Your task to perform on an android device: Open Google Chrome and click the shortcut for Amazon.com Image 0: 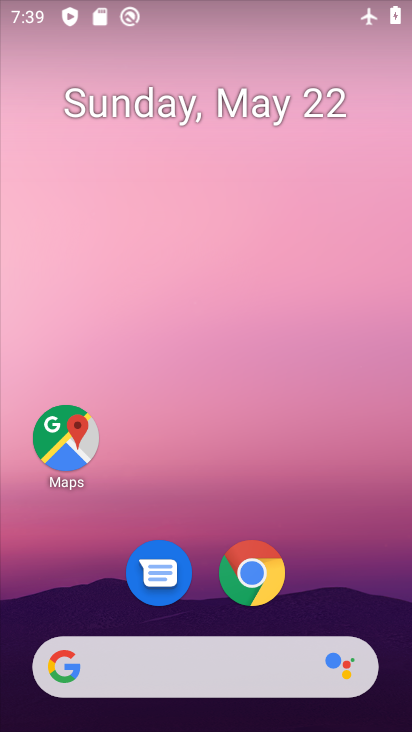
Step 0: drag from (342, 556) to (300, 145)
Your task to perform on an android device: Open Google Chrome and click the shortcut for Amazon.com Image 1: 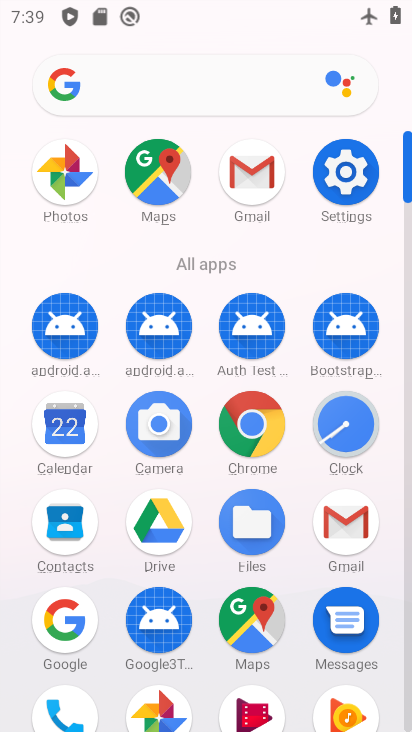
Step 1: click (239, 435)
Your task to perform on an android device: Open Google Chrome and click the shortcut for Amazon.com Image 2: 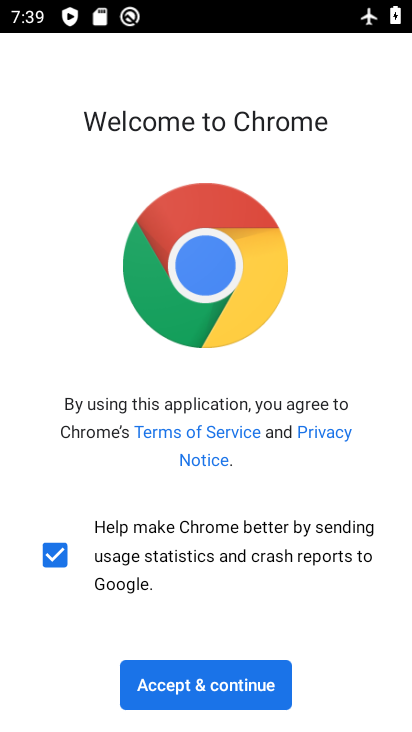
Step 2: click (208, 688)
Your task to perform on an android device: Open Google Chrome and click the shortcut for Amazon.com Image 3: 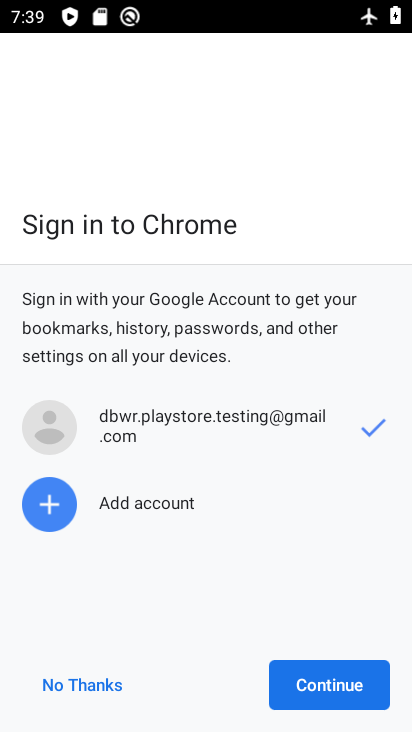
Step 3: click (287, 681)
Your task to perform on an android device: Open Google Chrome and click the shortcut for Amazon.com Image 4: 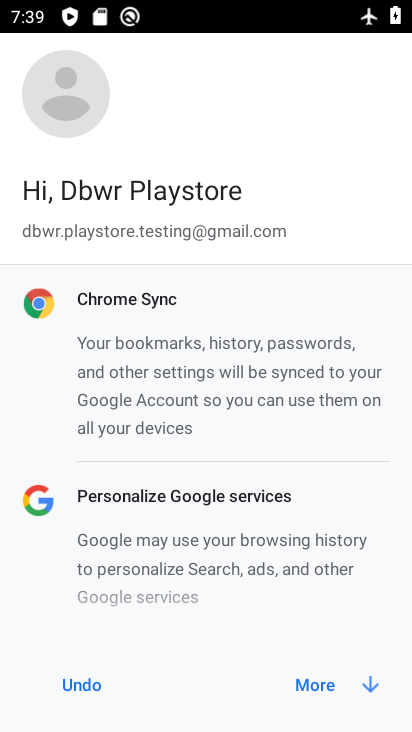
Step 4: click (312, 690)
Your task to perform on an android device: Open Google Chrome and click the shortcut for Amazon.com Image 5: 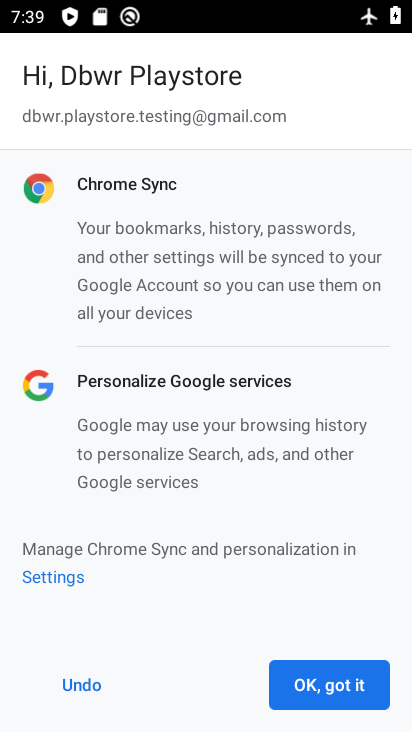
Step 5: click (312, 690)
Your task to perform on an android device: Open Google Chrome and click the shortcut for Amazon.com Image 6: 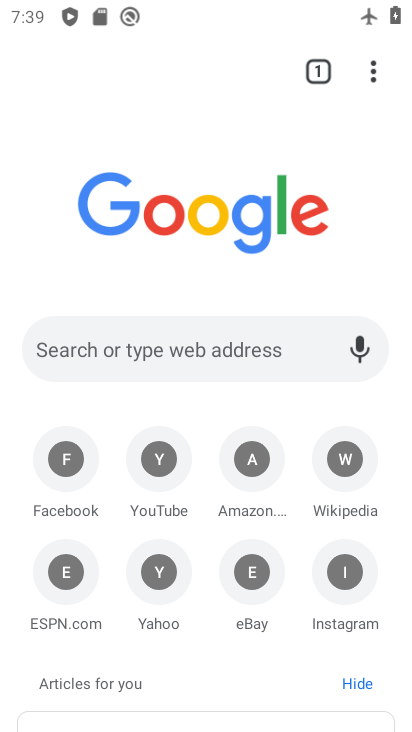
Step 6: click (250, 484)
Your task to perform on an android device: Open Google Chrome and click the shortcut for Amazon.com Image 7: 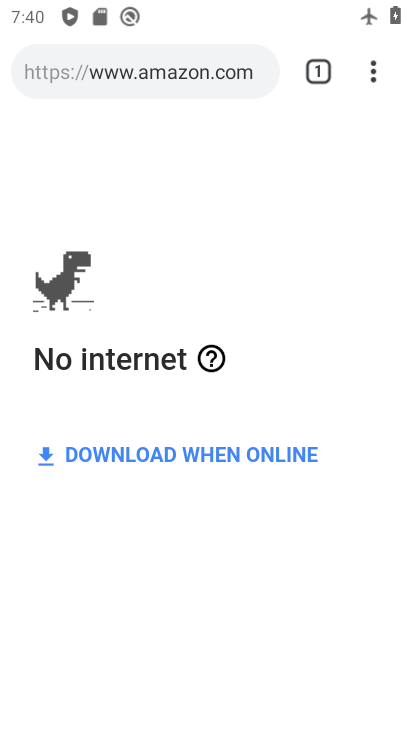
Step 7: task complete